Your task to perform on an android device: find snoozed emails in the gmail app Image 0: 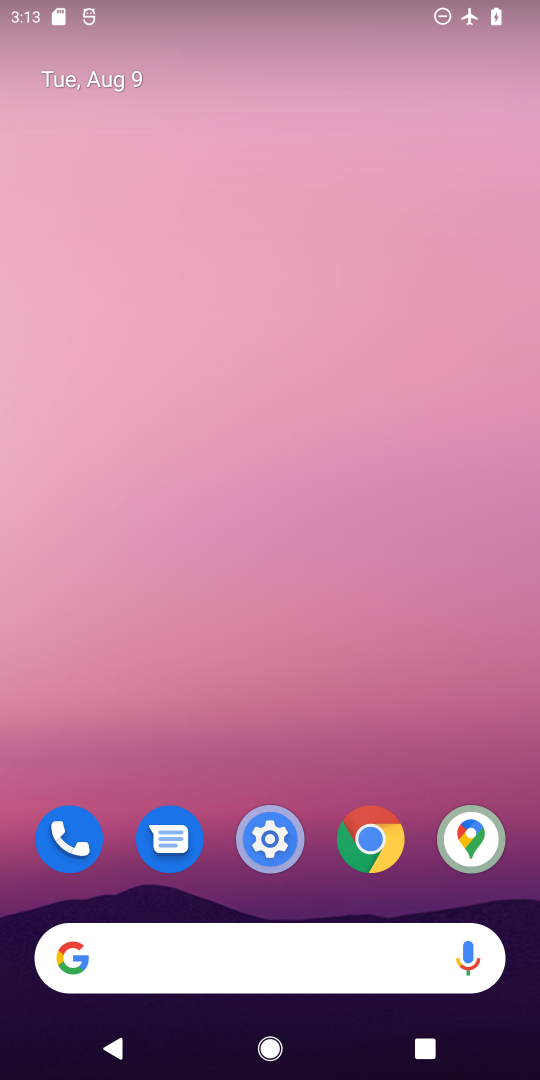
Step 0: press home button
Your task to perform on an android device: find snoozed emails in the gmail app Image 1: 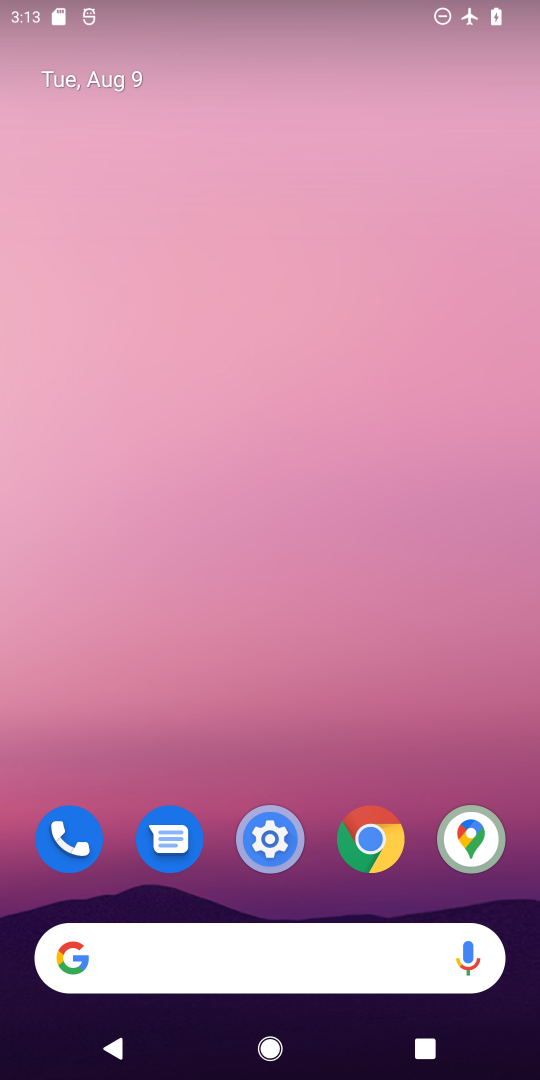
Step 1: drag from (377, 739) to (365, 4)
Your task to perform on an android device: find snoozed emails in the gmail app Image 2: 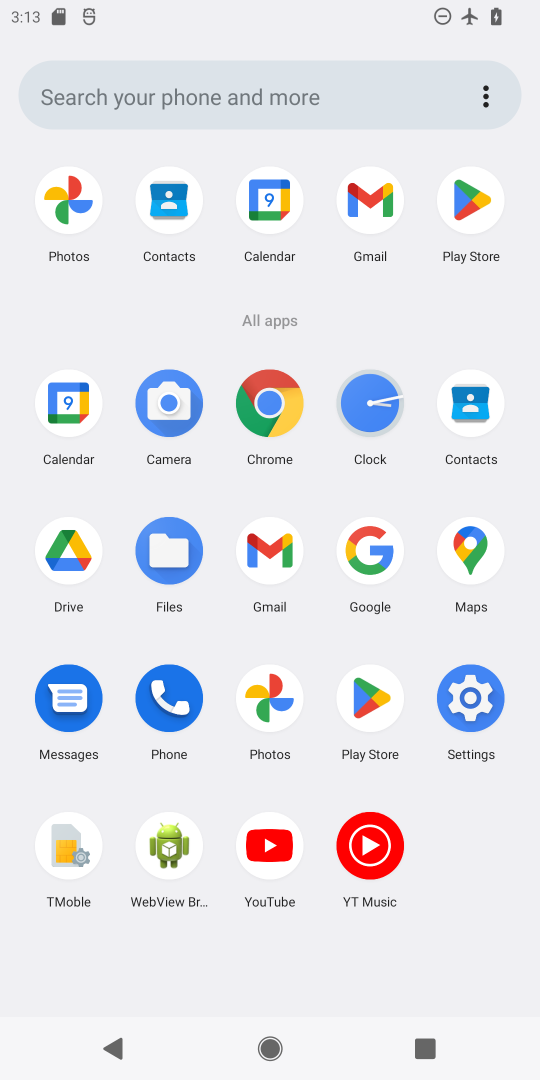
Step 2: click (362, 194)
Your task to perform on an android device: find snoozed emails in the gmail app Image 3: 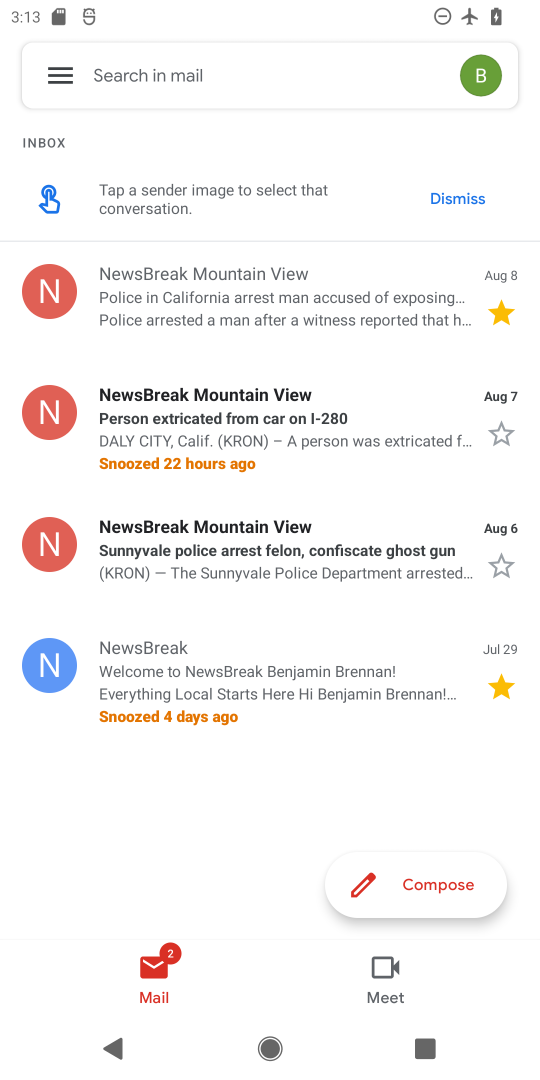
Step 3: click (54, 72)
Your task to perform on an android device: find snoozed emails in the gmail app Image 4: 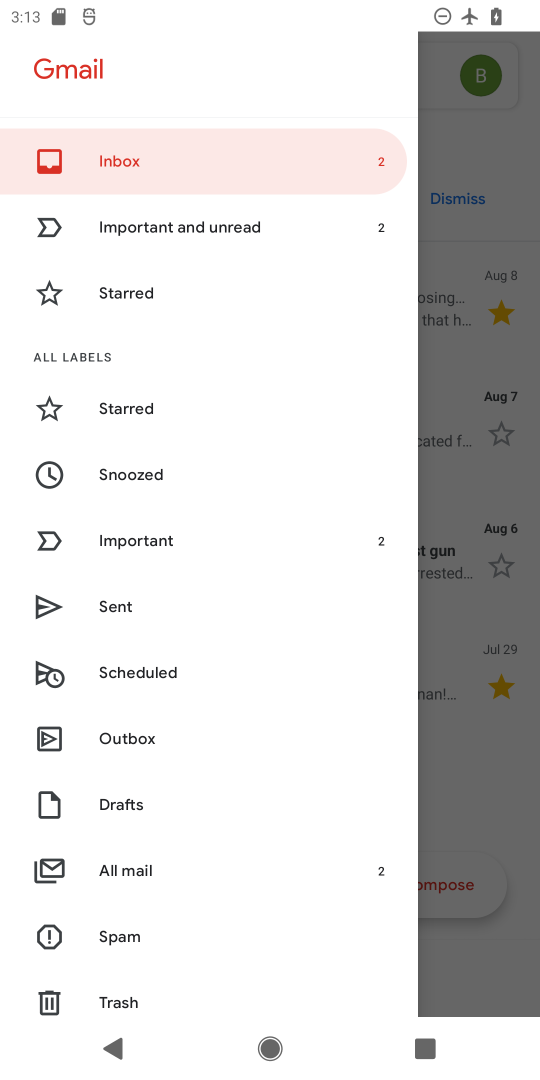
Step 4: click (153, 483)
Your task to perform on an android device: find snoozed emails in the gmail app Image 5: 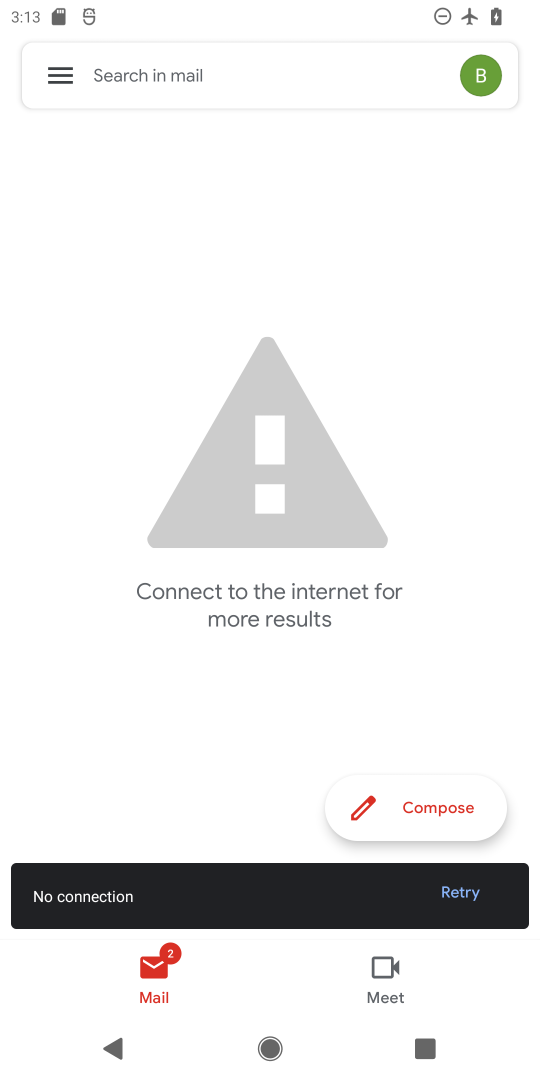
Step 5: task complete